Your task to perform on an android device: stop showing notifications on the lock screen Image 0: 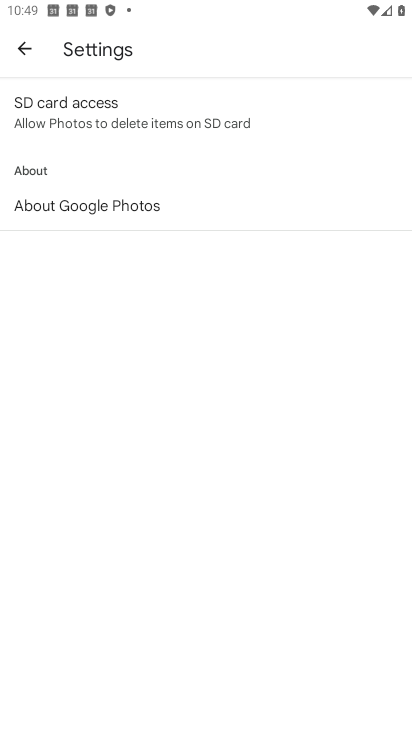
Step 0: press home button
Your task to perform on an android device: stop showing notifications on the lock screen Image 1: 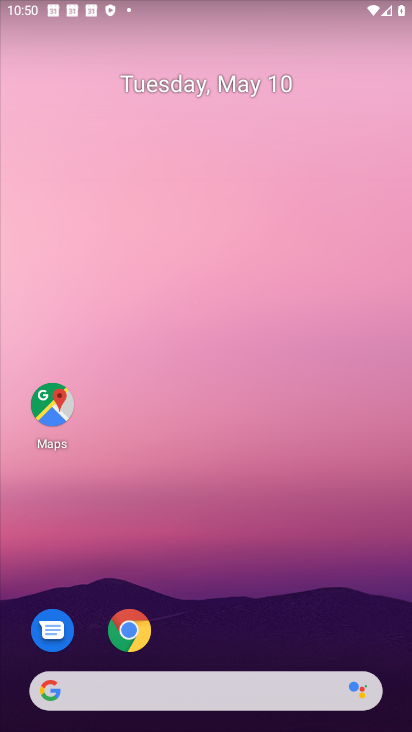
Step 1: drag from (170, 725) to (279, 9)
Your task to perform on an android device: stop showing notifications on the lock screen Image 2: 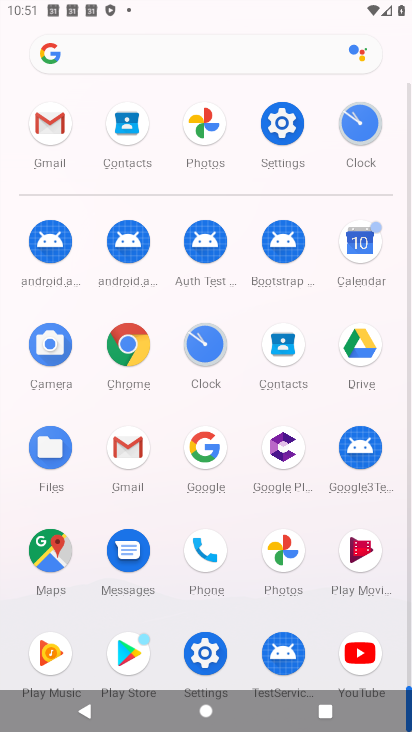
Step 2: click (287, 129)
Your task to perform on an android device: stop showing notifications on the lock screen Image 3: 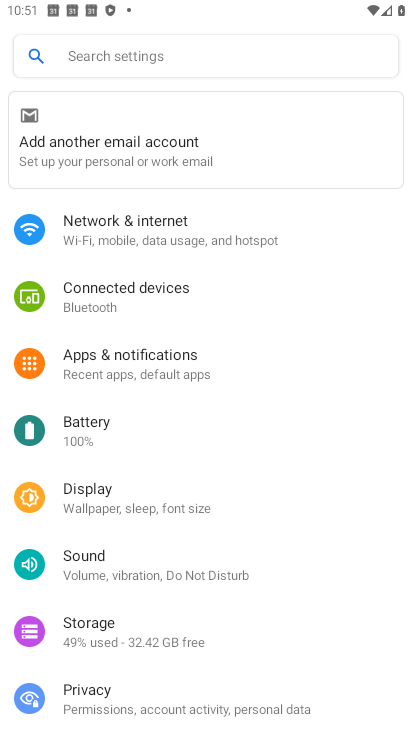
Step 3: click (168, 358)
Your task to perform on an android device: stop showing notifications on the lock screen Image 4: 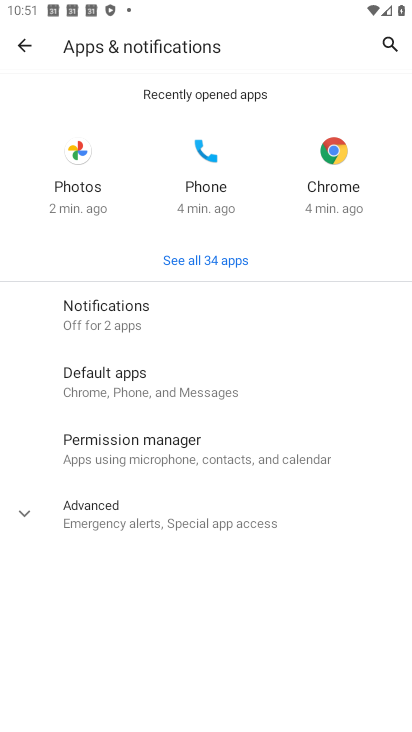
Step 4: click (135, 316)
Your task to perform on an android device: stop showing notifications on the lock screen Image 5: 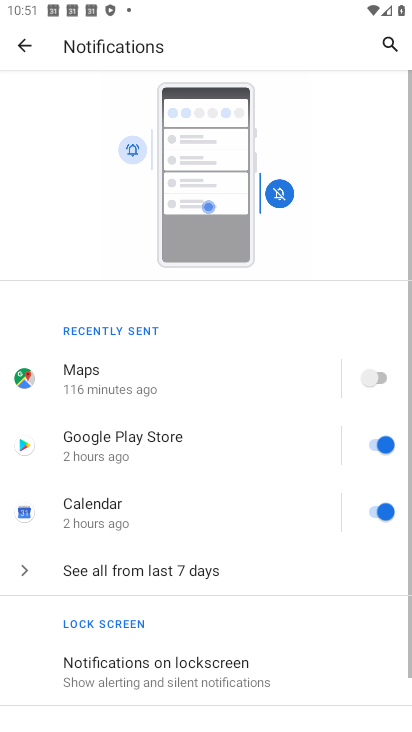
Step 5: drag from (242, 660) to (244, 146)
Your task to perform on an android device: stop showing notifications on the lock screen Image 6: 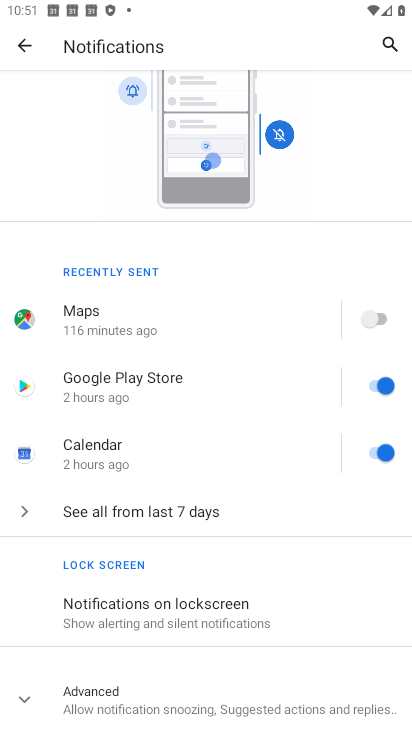
Step 6: click (199, 606)
Your task to perform on an android device: stop showing notifications on the lock screen Image 7: 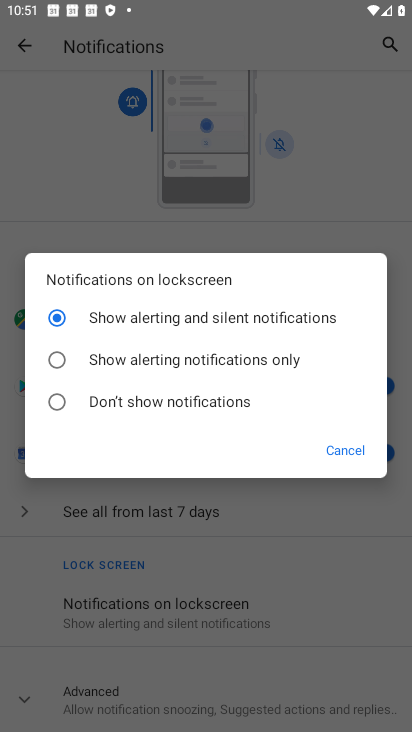
Step 7: click (110, 399)
Your task to perform on an android device: stop showing notifications on the lock screen Image 8: 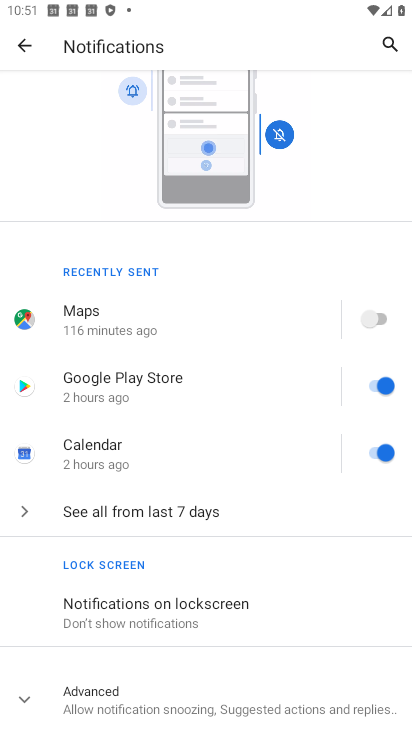
Step 8: task complete